Your task to perform on an android device: When is my next appointment? Image 0: 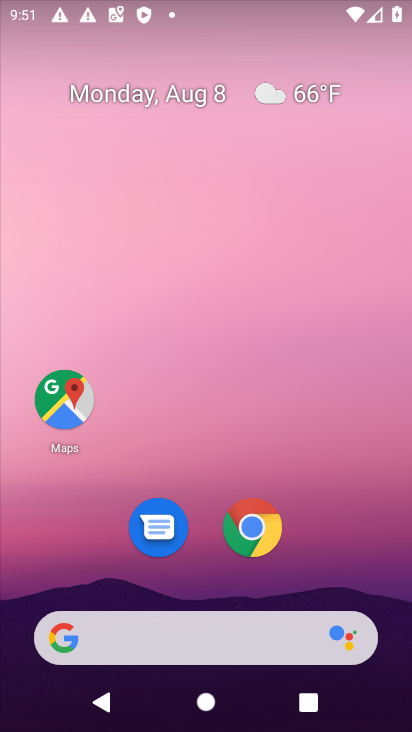
Step 0: drag from (395, 691) to (386, 109)
Your task to perform on an android device: When is my next appointment? Image 1: 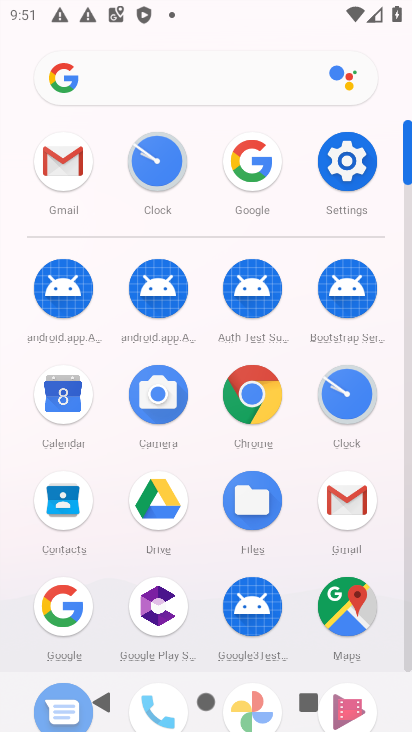
Step 1: click (65, 397)
Your task to perform on an android device: When is my next appointment? Image 2: 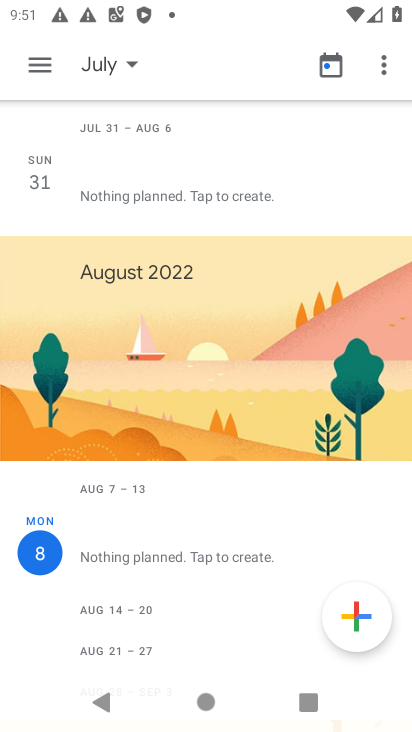
Step 2: click (44, 65)
Your task to perform on an android device: When is my next appointment? Image 3: 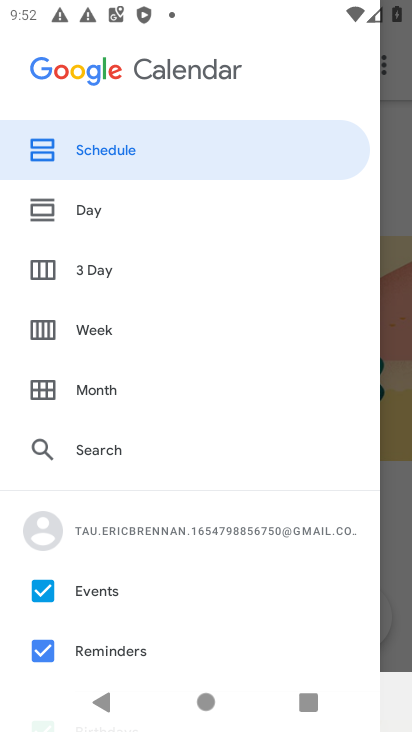
Step 3: drag from (186, 598) to (210, 298)
Your task to perform on an android device: When is my next appointment? Image 4: 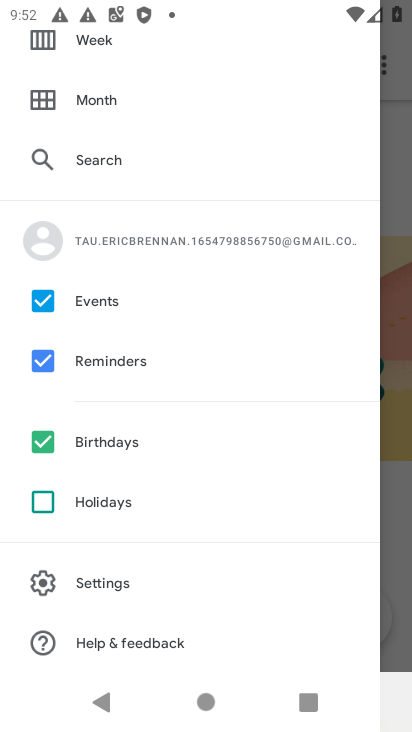
Step 4: drag from (260, 622) to (261, 316)
Your task to perform on an android device: When is my next appointment? Image 5: 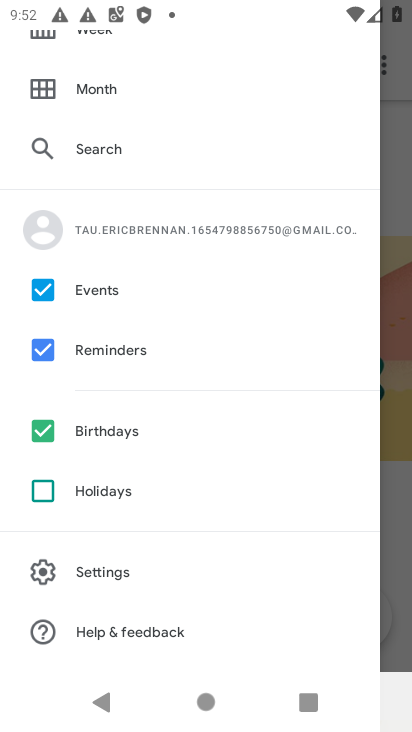
Step 5: drag from (235, 159) to (244, 554)
Your task to perform on an android device: When is my next appointment? Image 6: 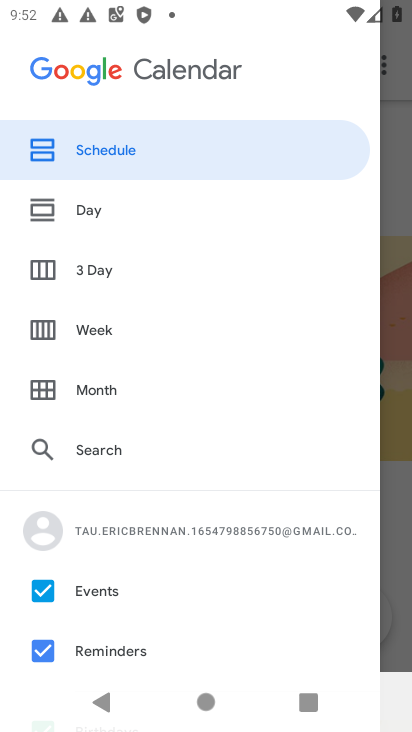
Step 6: click (96, 152)
Your task to perform on an android device: When is my next appointment? Image 7: 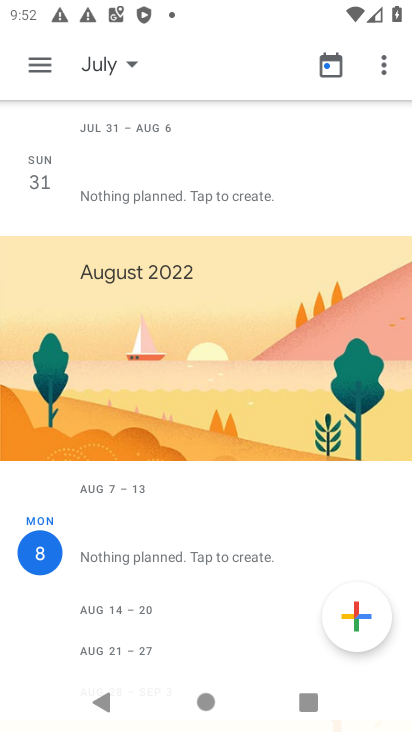
Step 7: click (132, 60)
Your task to perform on an android device: When is my next appointment? Image 8: 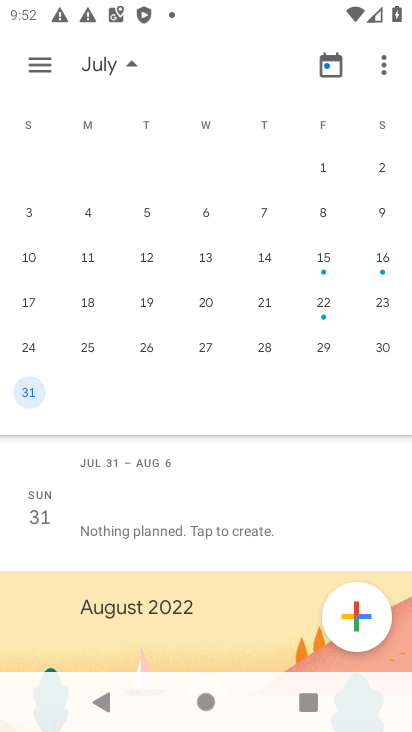
Step 8: drag from (380, 260) to (116, 269)
Your task to perform on an android device: When is my next appointment? Image 9: 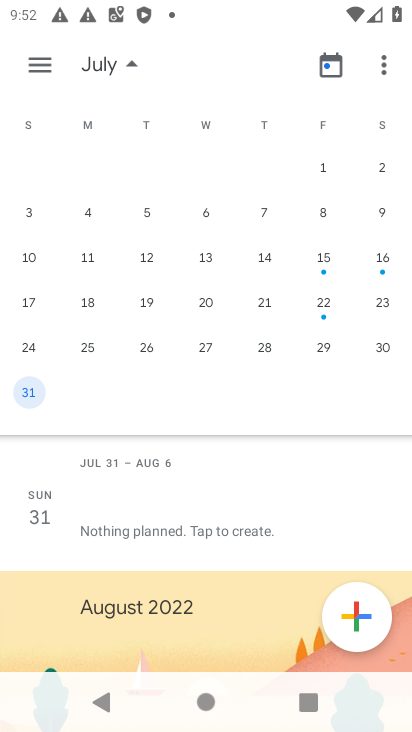
Step 9: drag from (395, 270) to (44, 264)
Your task to perform on an android device: When is my next appointment? Image 10: 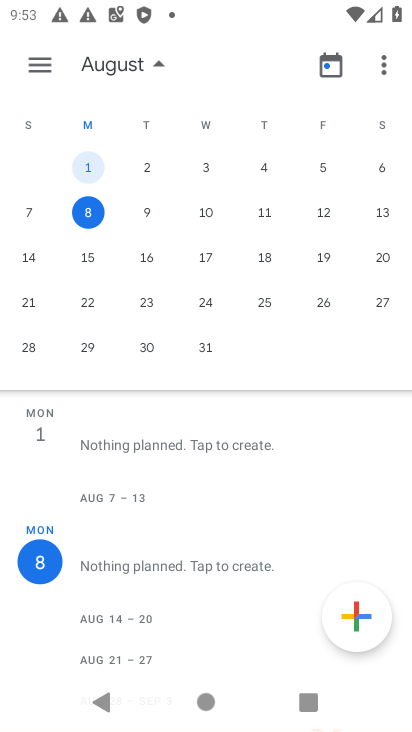
Step 10: click (37, 60)
Your task to perform on an android device: When is my next appointment? Image 11: 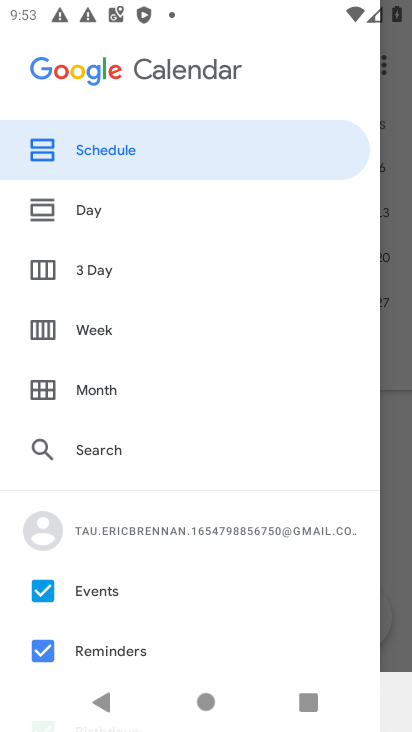
Step 11: drag from (188, 628) to (230, 310)
Your task to perform on an android device: When is my next appointment? Image 12: 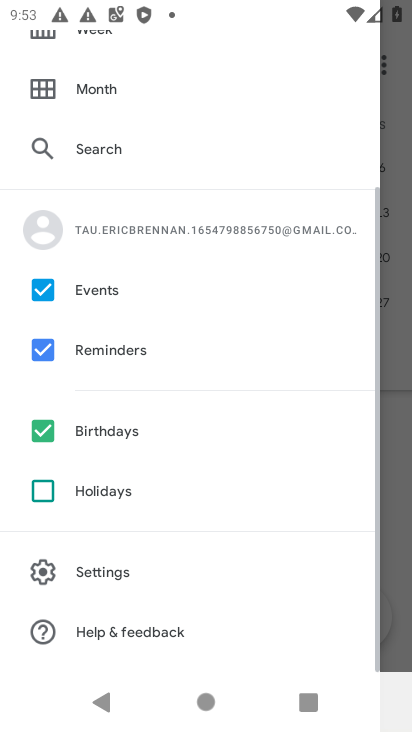
Step 12: click (45, 430)
Your task to perform on an android device: When is my next appointment? Image 13: 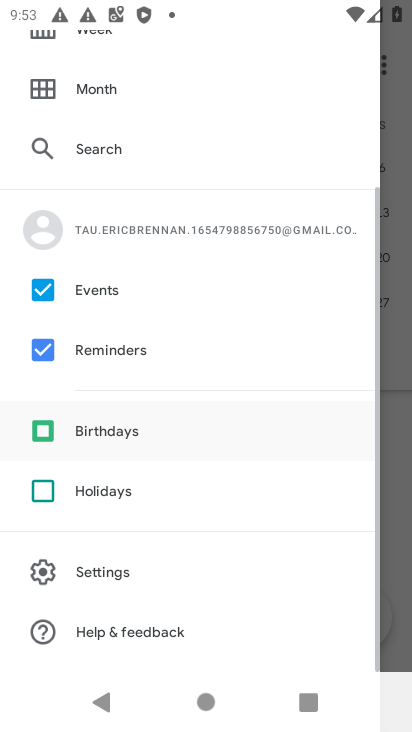
Step 13: click (45, 348)
Your task to perform on an android device: When is my next appointment? Image 14: 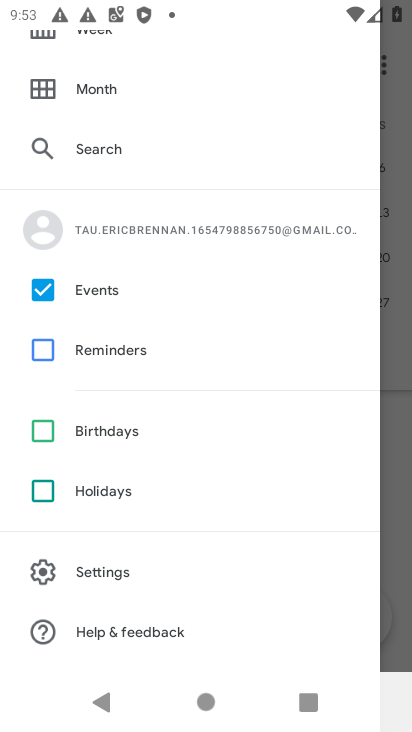
Step 14: drag from (236, 132) to (249, 516)
Your task to perform on an android device: When is my next appointment? Image 15: 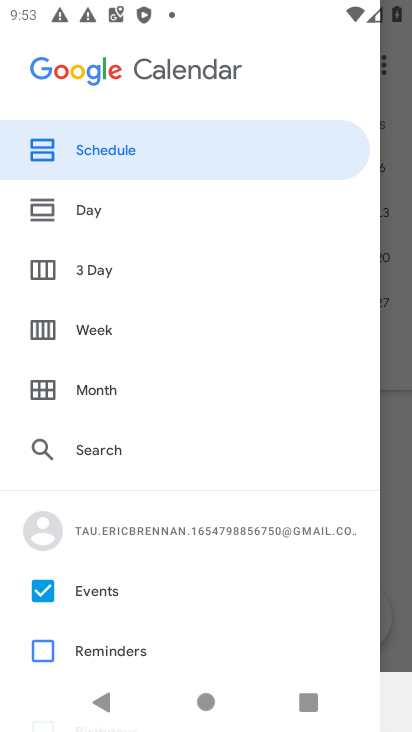
Step 15: click (127, 146)
Your task to perform on an android device: When is my next appointment? Image 16: 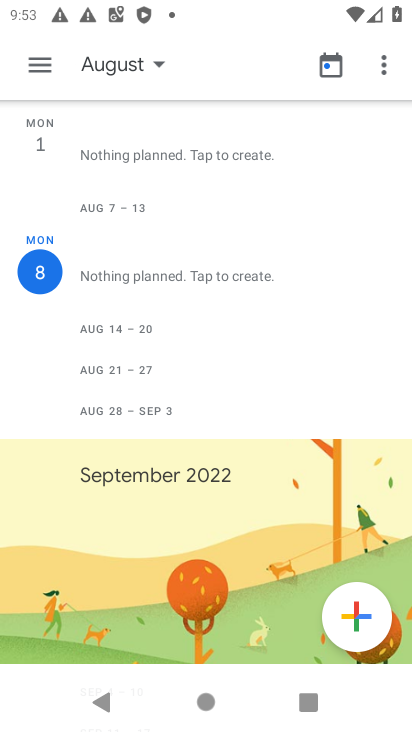
Step 16: task complete